Your task to perform on an android device: Go to battery settings Image 0: 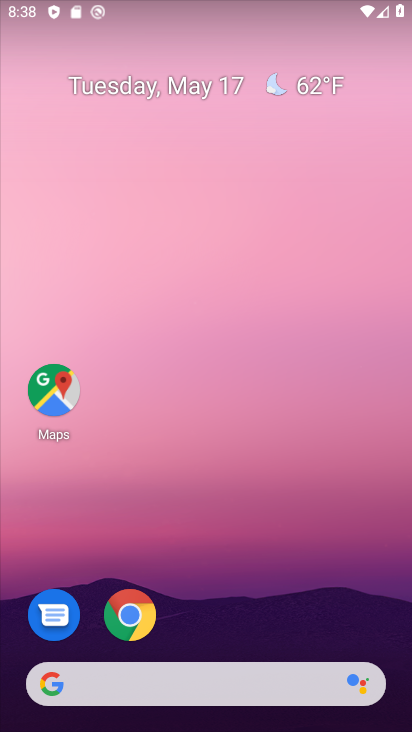
Step 0: click (303, 23)
Your task to perform on an android device: Go to battery settings Image 1: 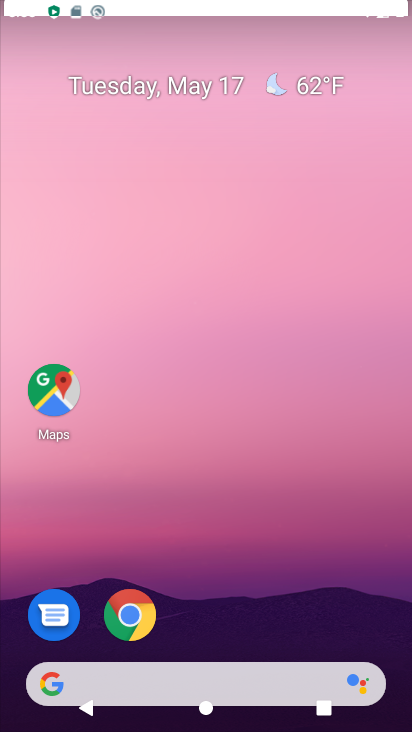
Step 1: drag from (320, 630) to (315, 2)
Your task to perform on an android device: Go to battery settings Image 2: 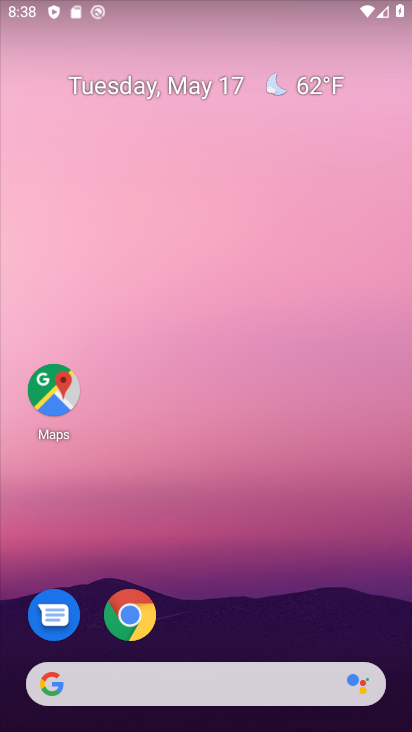
Step 2: drag from (296, 637) to (308, 73)
Your task to perform on an android device: Go to battery settings Image 3: 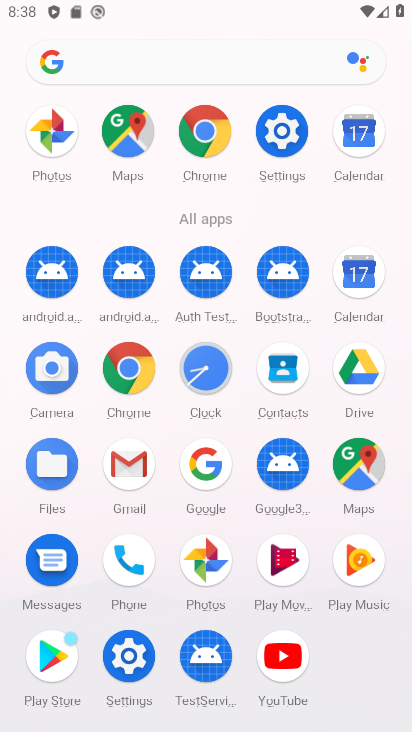
Step 3: click (126, 659)
Your task to perform on an android device: Go to battery settings Image 4: 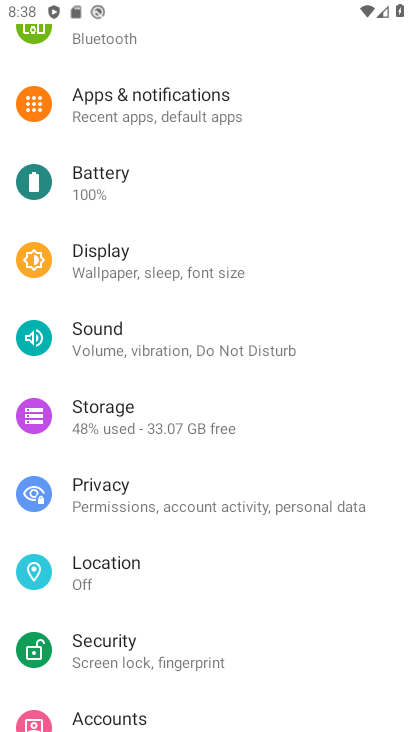
Step 4: click (128, 179)
Your task to perform on an android device: Go to battery settings Image 5: 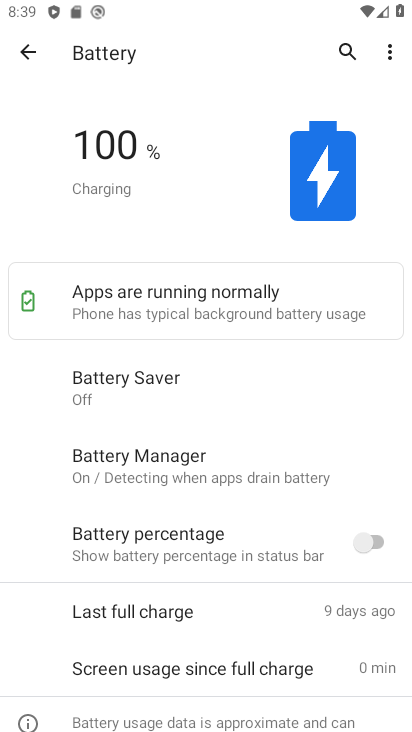
Step 5: task complete